Your task to perform on an android device: Go to internet settings Image 0: 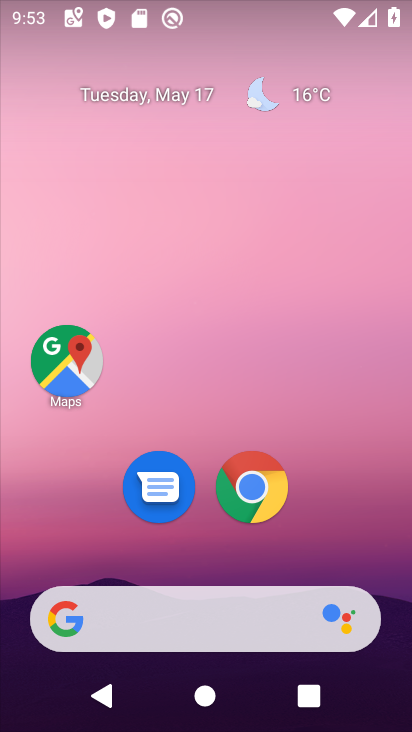
Step 0: drag from (199, 554) to (182, 105)
Your task to perform on an android device: Go to internet settings Image 1: 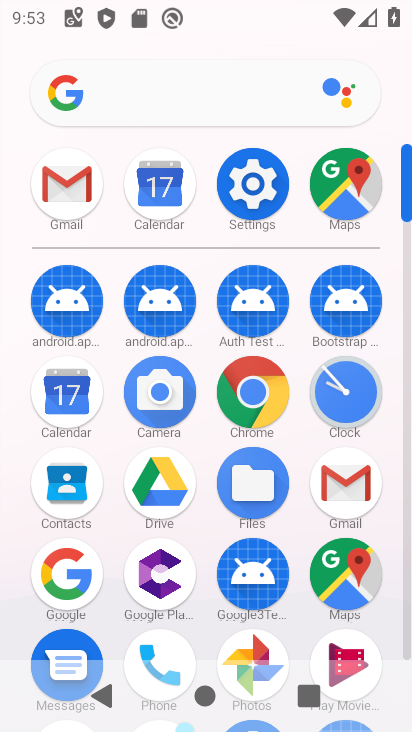
Step 1: click (266, 196)
Your task to perform on an android device: Go to internet settings Image 2: 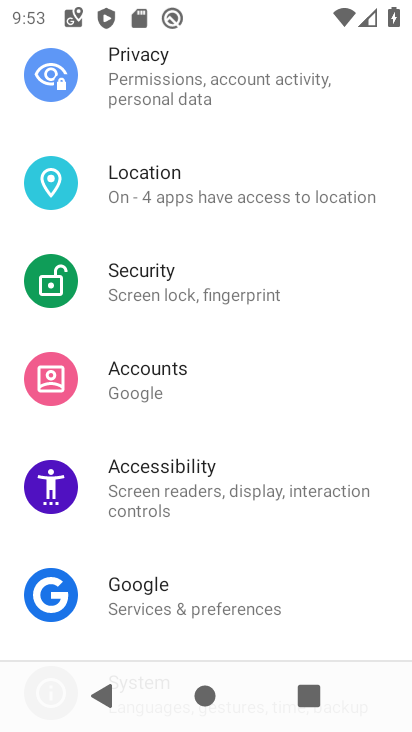
Step 2: drag from (252, 191) to (208, 482)
Your task to perform on an android device: Go to internet settings Image 3: 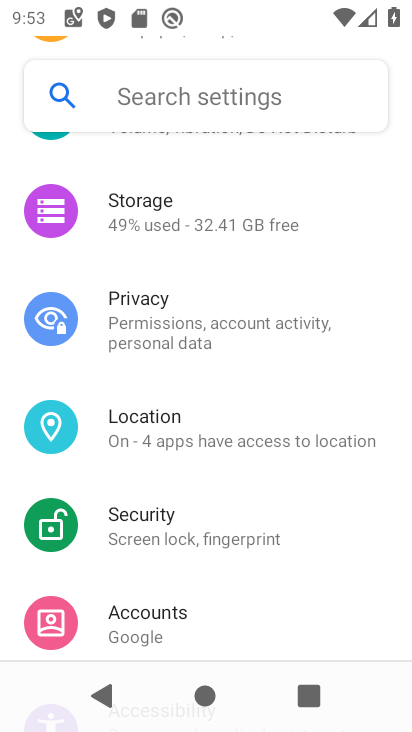
Step 3: drag from (161, 254) to (152, 530)
Your task to perform on an android device: Go to internet settings Image 4: 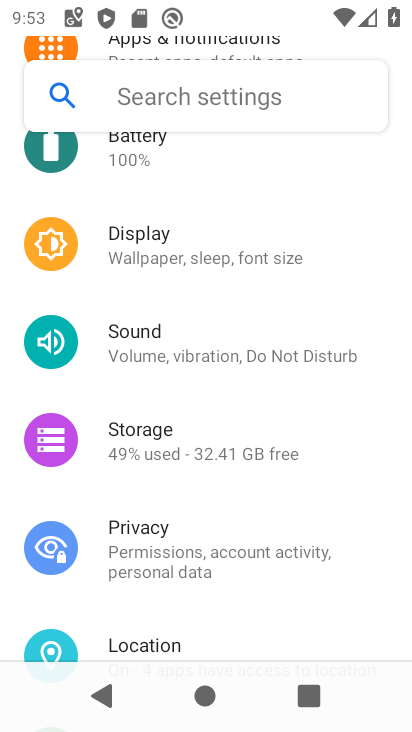
Step 4: drag from (130, 164) to (148, 452)
Your task to perform on an android device: Go to internet settings Image 5: 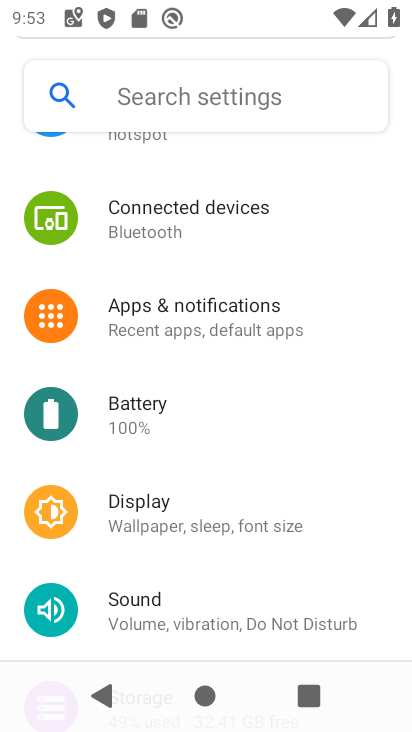
Step 5: drag from (164, 206) to (155, 614)
Your task to perform on an android device: Go to internet settings Image 6: 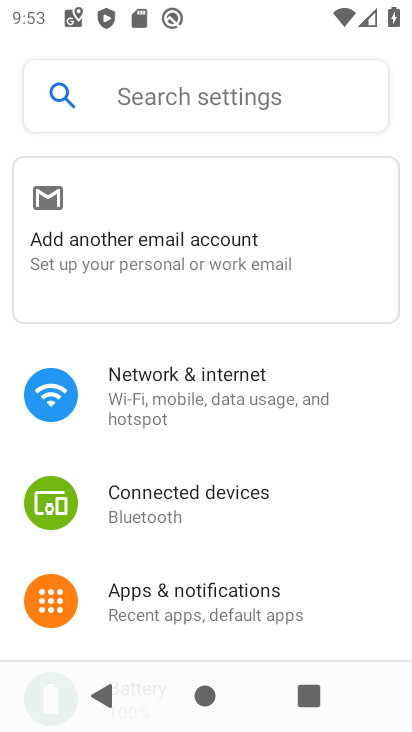
Step 6: click (155, 392)
Your task to perform on an android device: Go to internet settings Image 7: 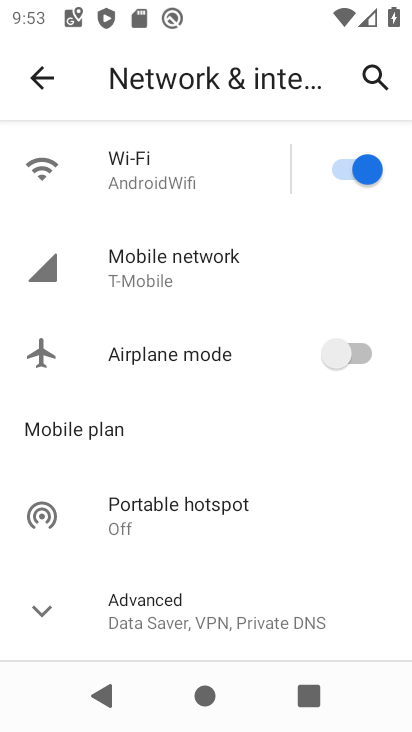
Step 7: task complete